Your task to perform on an android device: turn off wifi Image 0: 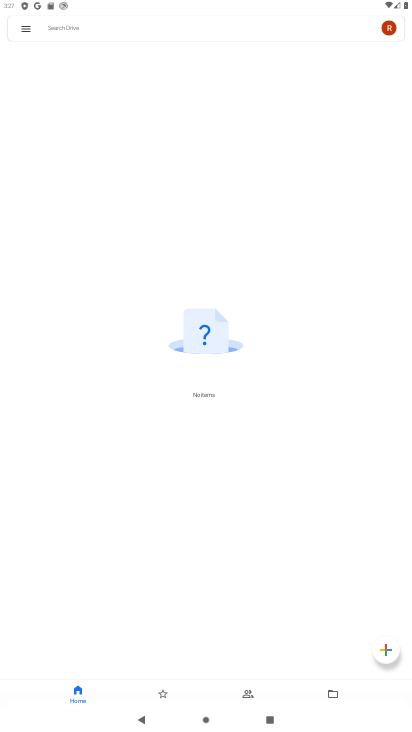
Step 0: press home button
Your task to perform on an android device: turn off wifi Image 1: 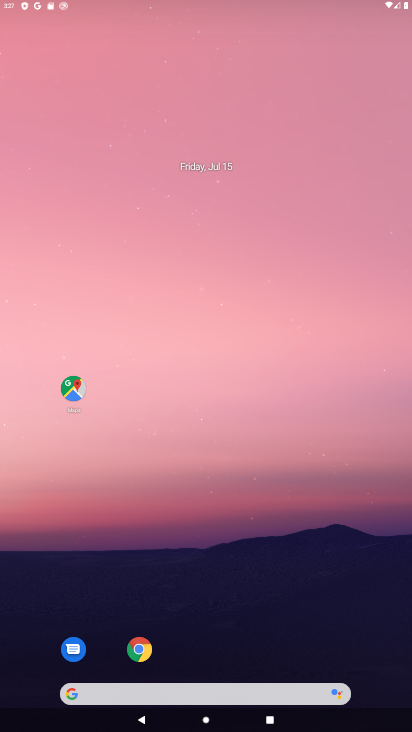
Step 1: drag from (233, 625) to (236, 96)
Your task to perform on an android device: turn off wifi Image 2: 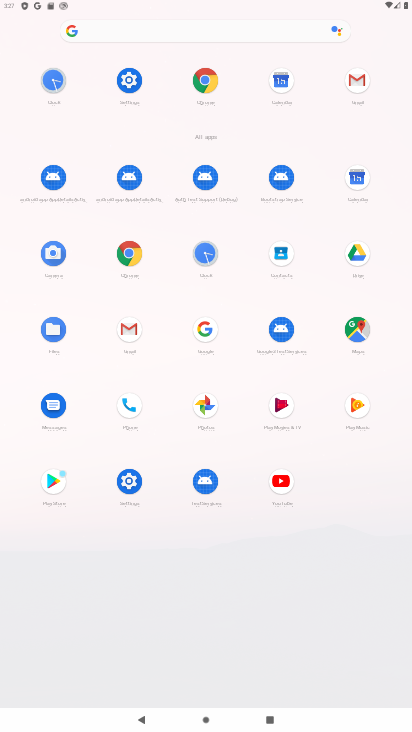
Step 2: click (130, 72)
Your task to perform on an android device: turn off wifi Image 3: 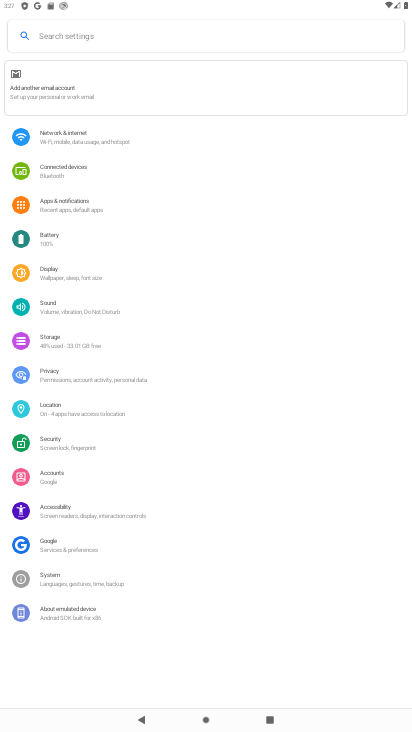
Step 3: click (60, 151)
Your task to perform on an android device: turn off wifi Image 4: 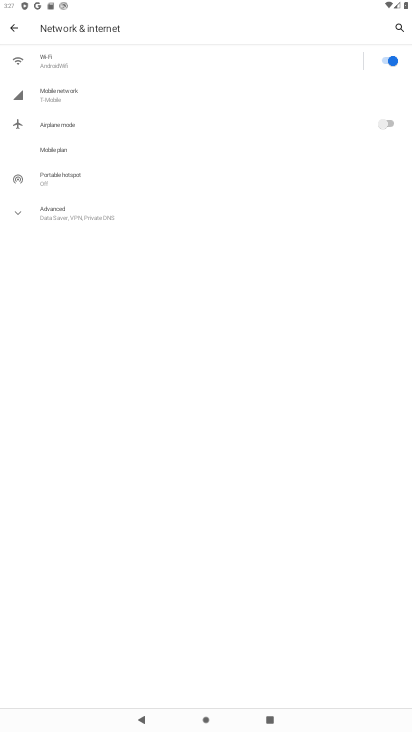
Step 4: click (385, 61)
Your task to perform on an android device: turn off wifi Image 5: 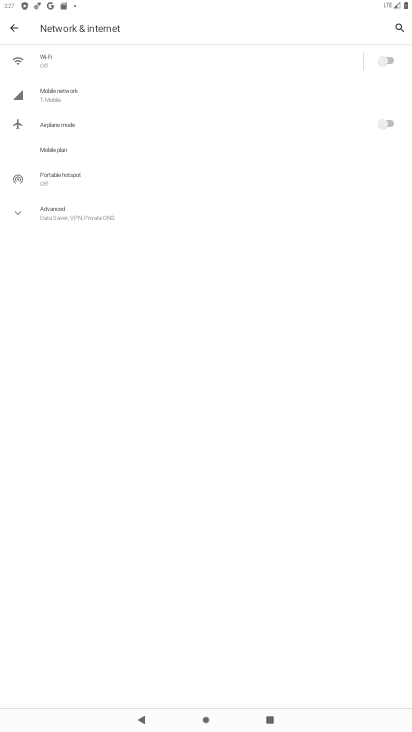
Step 5: task complete